Your task to perform on an android device: Go to Android settings Image 0: 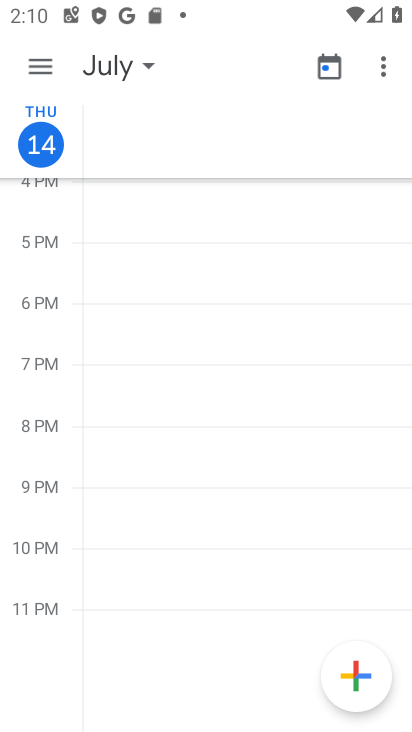
Step 0: press home button
Your task to perform on an android device: Go to Android settings Image 1: 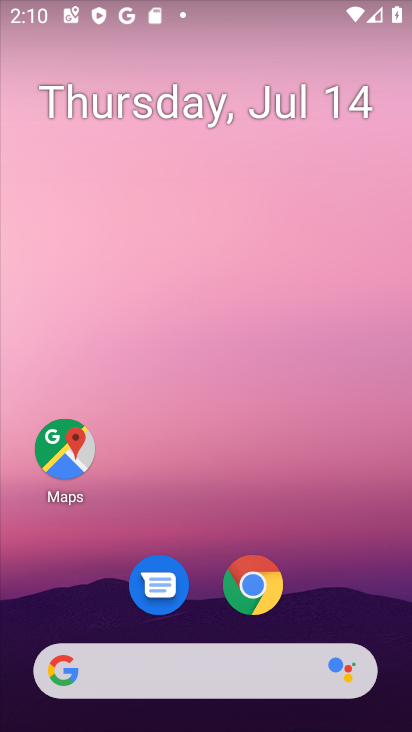
Step 1: drag from (326, 600) to (300, 40)
Your task to perform on an android device: Go to Android settings Image 2: 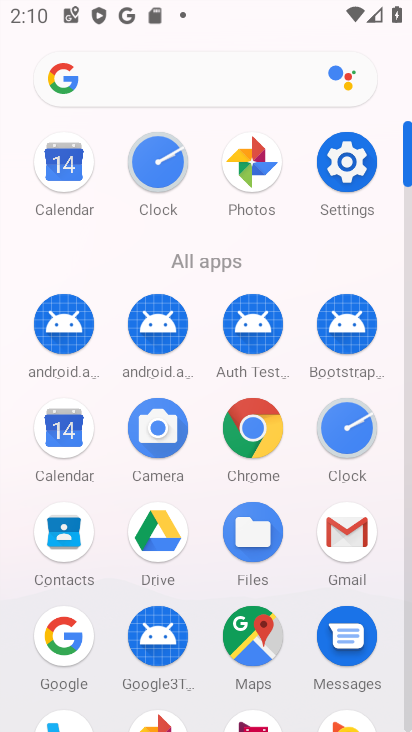
Step 2: click (345, 164)
Your task to perform on an android device: Go to Android settings Image 3: 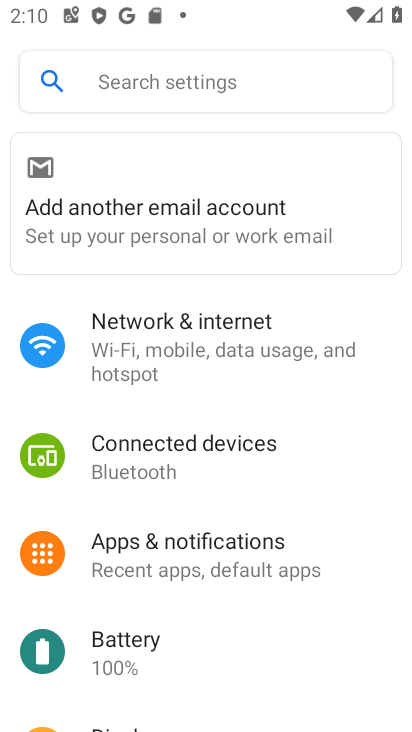
Step 3: drag from (190, 577) to (175, 47)
Your task to perform on an android device: Go to Android settings Image 4: 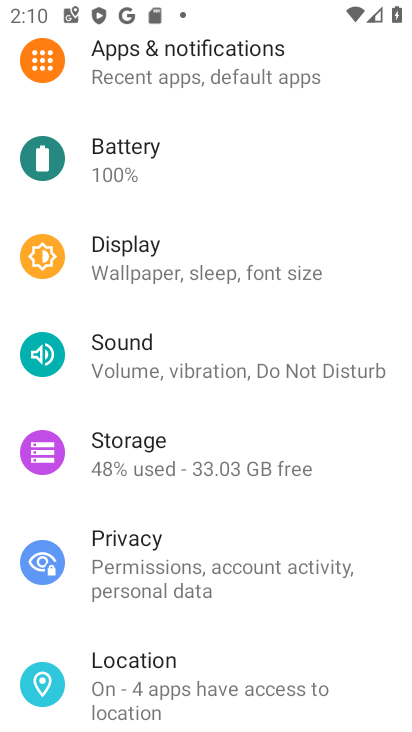
Step 4: drag from (232, 507) to (246, 1)
Your task to perform on an android device: Go to Android settings Image 5: 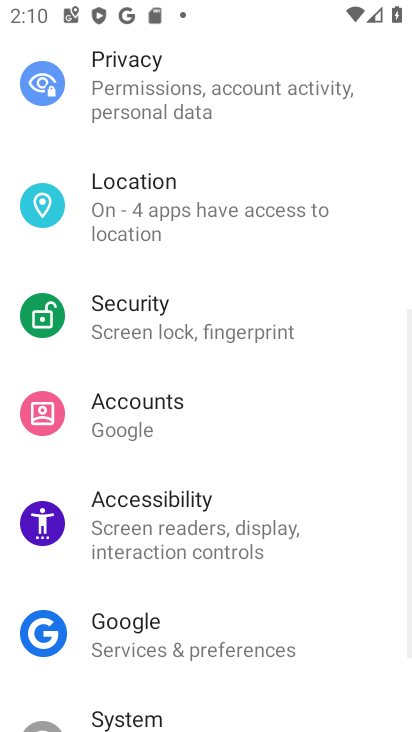
Step 5: drag from (237, 406) to (209, 25)
Your task to perform on an android device: Go to Android settings Image 6: 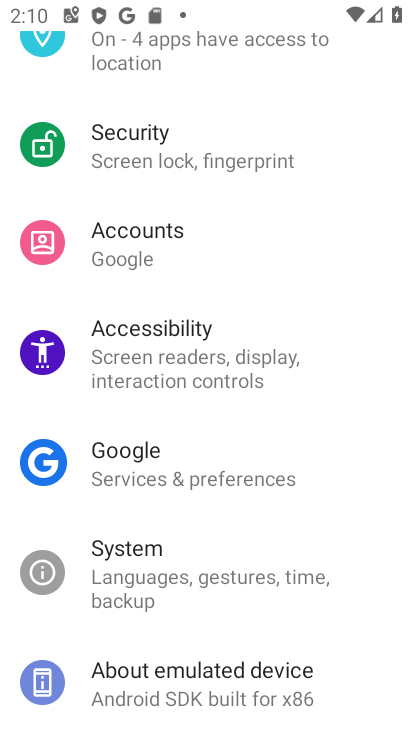
Step 6: click (202, 684)
Your task to perform on an android device: Go to Android settings Image 7: 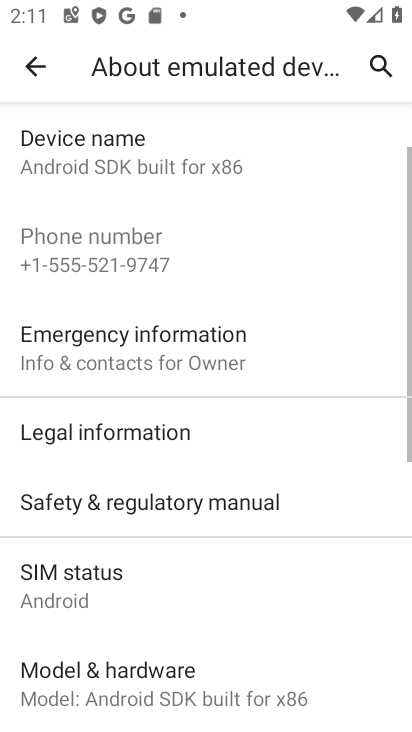
Step 7: task complete